Your task to perform on an android device: open sync settings in chrome Image 0: 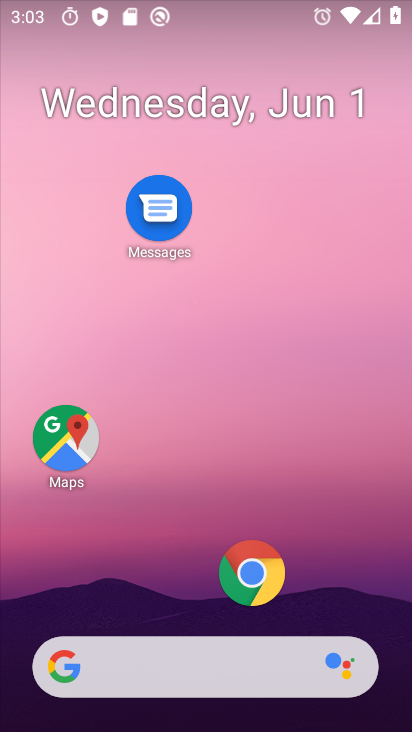
Step 0: click (243, 596)
Your task to perform on an android device: open sync settings in chrome Image 1: 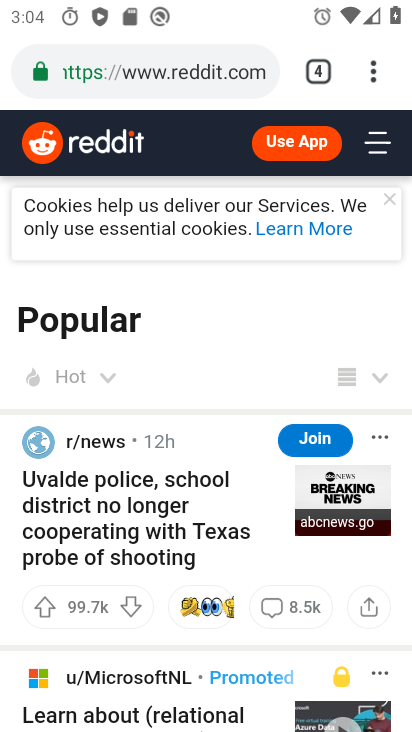
Step 1: drag from (379, 76) to (164, 568)
Your task to perform on an android device: open sync settings in chrome Image 2: 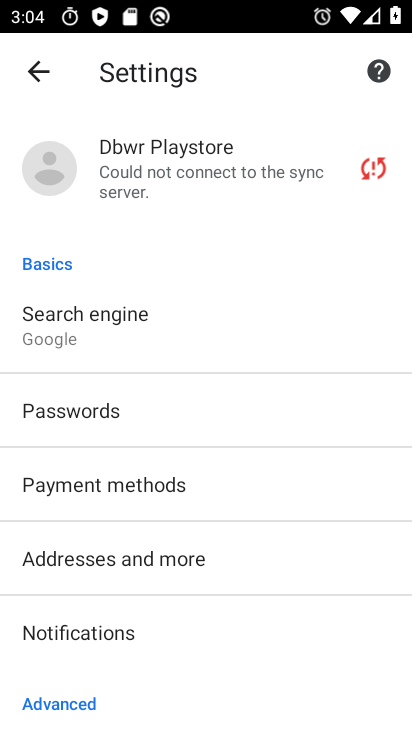
Step 2: drag from (172, 633) to (202, 268)
Your task to perform on an android device: open sync settings in chrome Image 3: 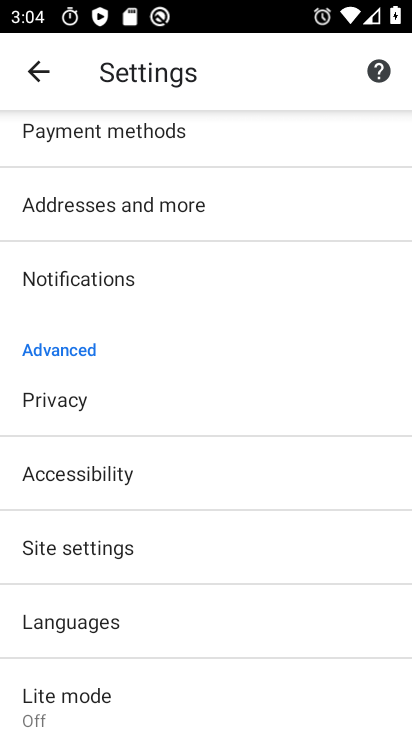
Step 3: drag from (202, 268) to (228, 538)
Your task to perform on an android device: open sync settings in chrome Image 4: 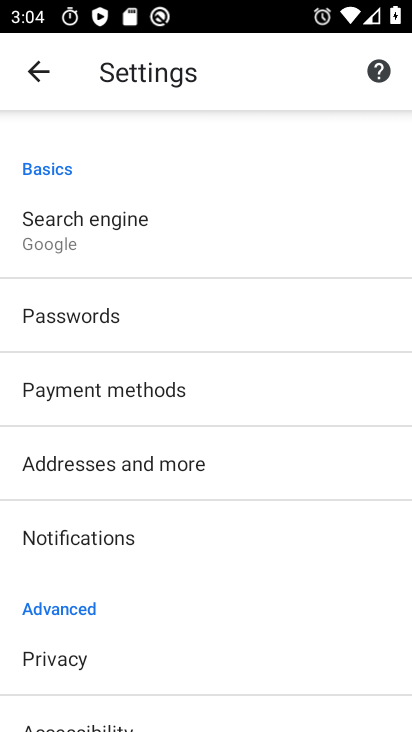
Step 4: drag from (181, 206) to (215, 435)
Your task to perform on an android device: open sync settings in chrome Image 5: 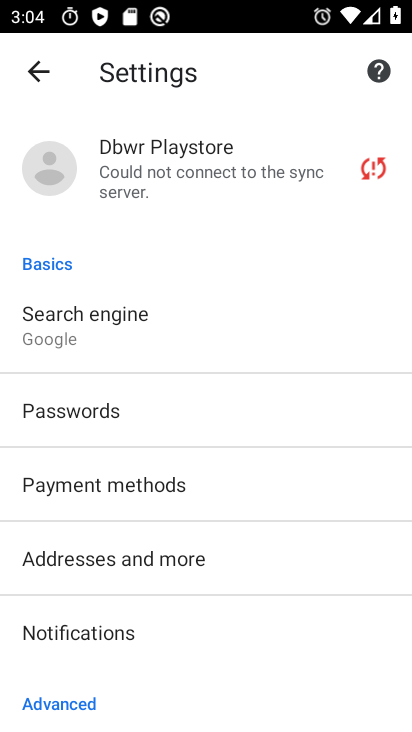
Step 5: click (180, 189)
Your task to perform on an android device: open sync settings in chrome Image 6: 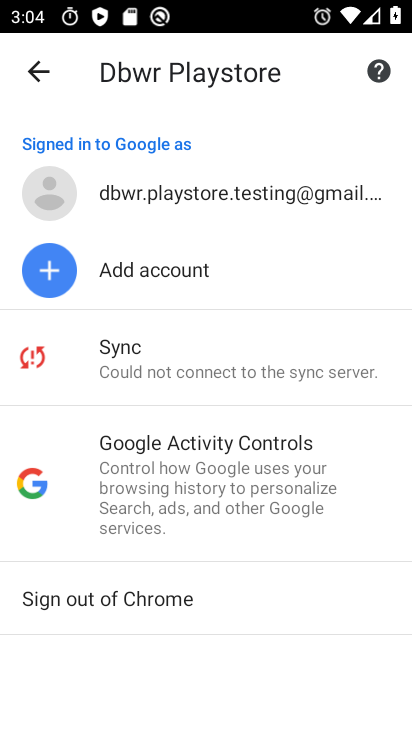
Step 6: click (207, 352)
Your task to perform on an android device: open sync settings in chrome Image 7: 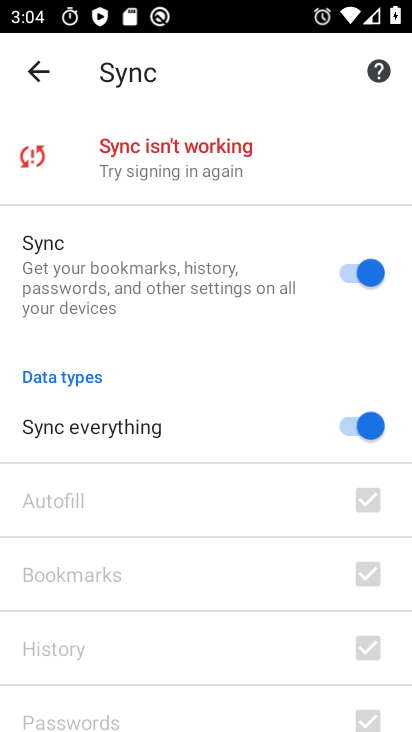
Step 7: task complete